Your task to perform on an android device: turn off wifi Image 0: 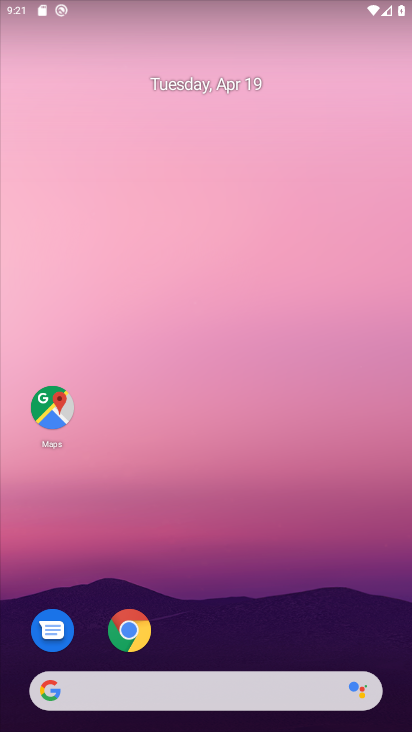
Step 0: drag from (290, 603) to (207, 99)
Your task to perform on an android device: turn off wifi Image 1: 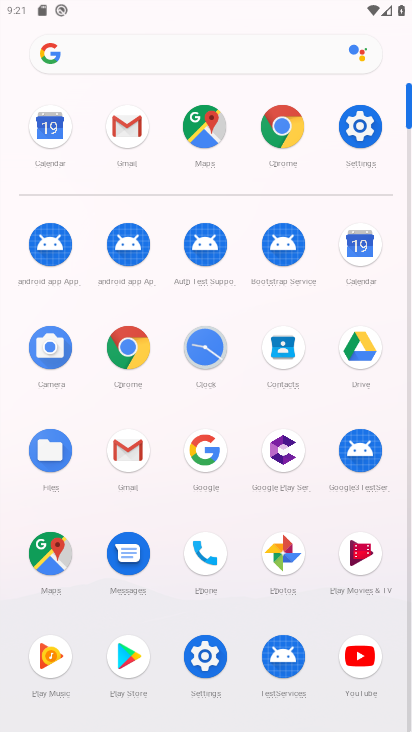
Step 1: click (356, 132)
Your task to perform on an android device: turn off wifi Image 2: 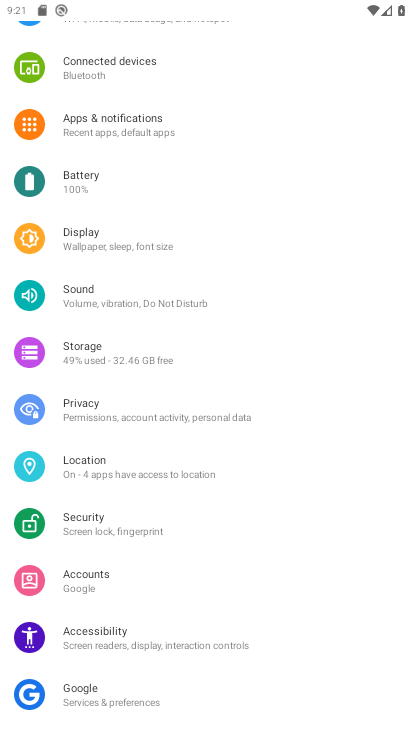
Step 2: drag from (229, 239) to (246, 582)
Your task to perform on an android device: turn off wifi Image 3: 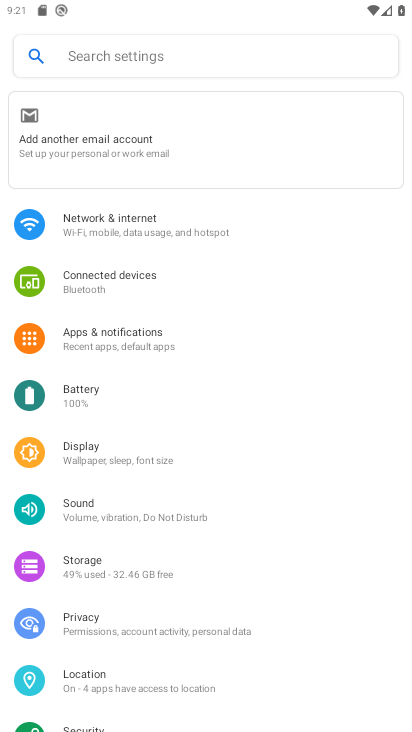
Step 3: click (190, 238)
Your task to perform on an android device: turn off wifi Image 4: 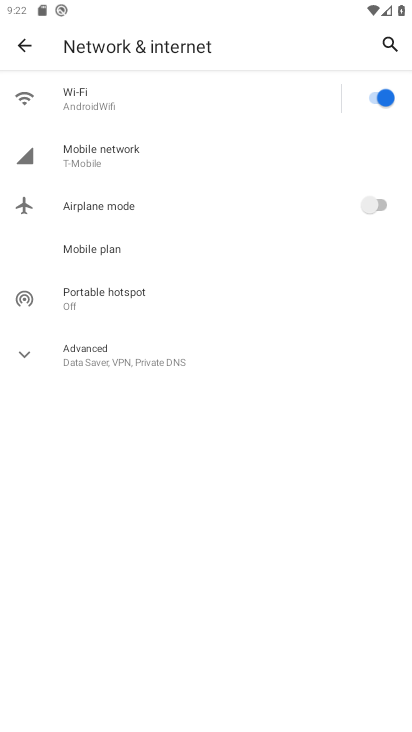
Step 4: click (378, 103)
Your task to perform on an android device: turn off wifi Image 5: 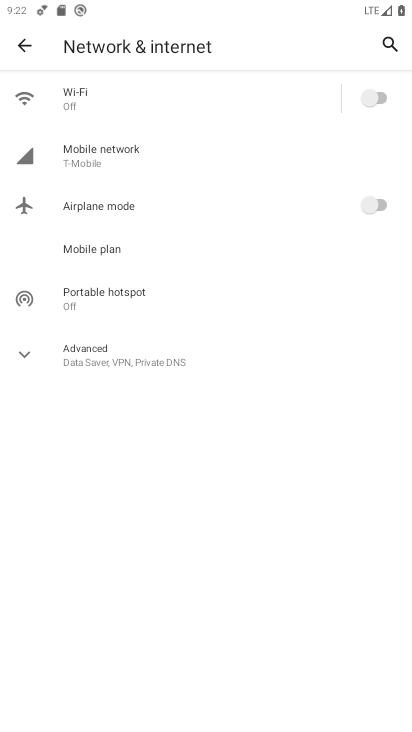
Step 5: task complete